Your task to perform on an android device: Open Yahoo.com Image 0: 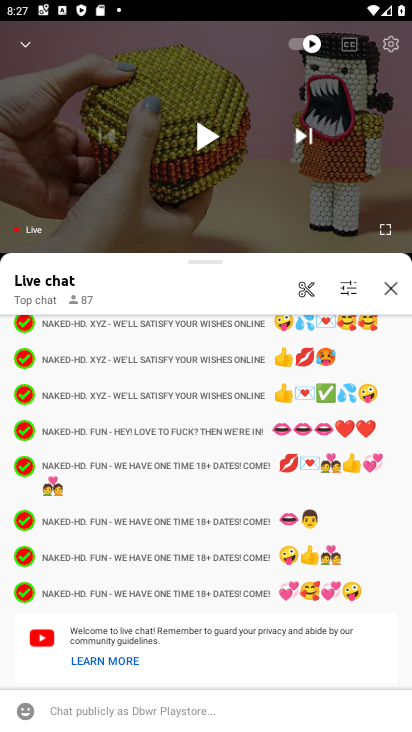
Step 0: press home button
Your task to perform on an android device: Open Yahoo.com Image 1: 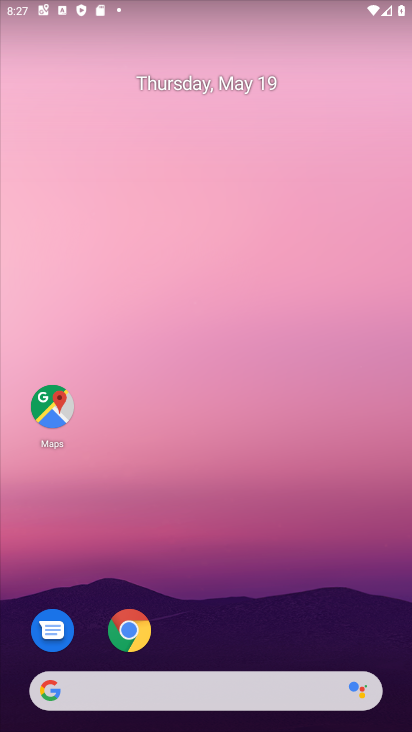
Step 1: click (132, 635)
Your task to perform on an android device: Open Yahoo.com Image 2: 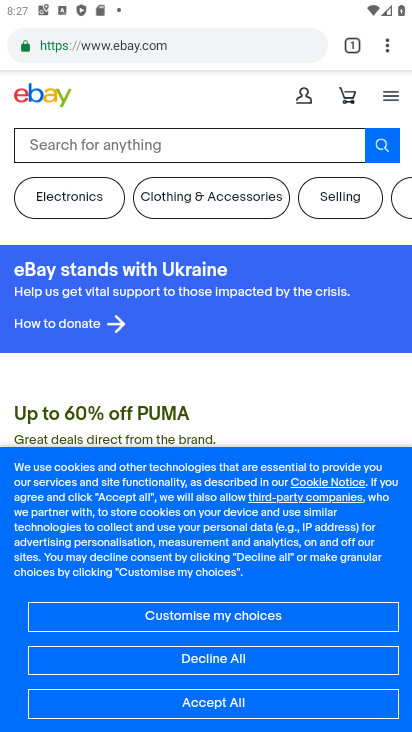
Step 2: click (199, 45)
Your task to perform on an android device: Open Yahoo.com Image 3: 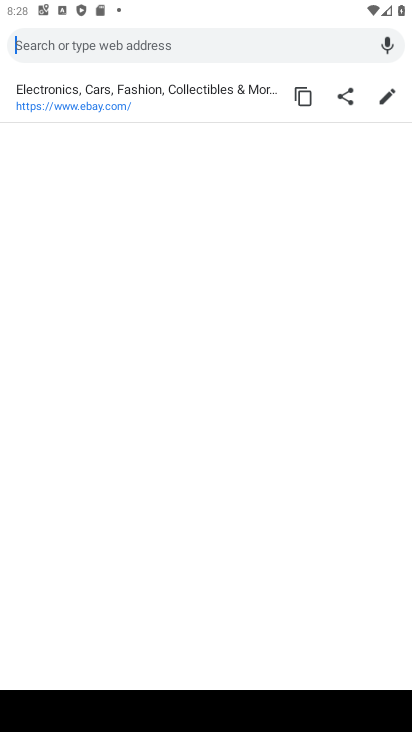
Step 3: type "yahoo.com"
Your task to perform on an android device: Open Yahoo.com Image 4: 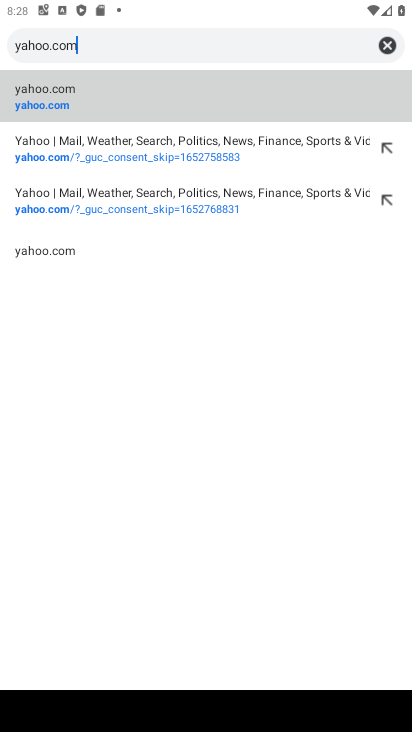
Step 4: click (24, 94)
Your task to perform on an android device: Open Yahoo.com Image 5: 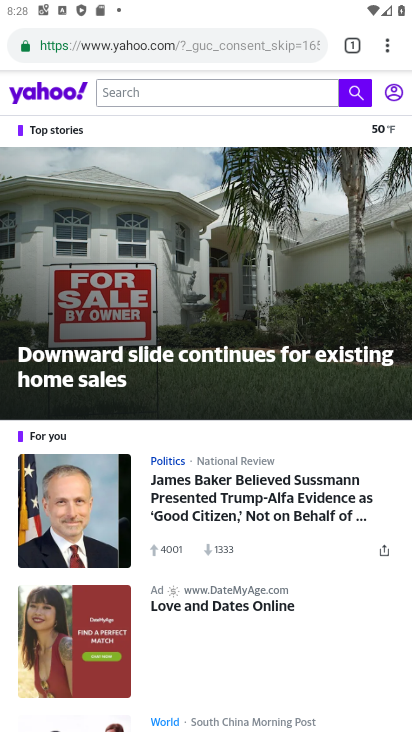
Step 5: task complete